Your task to perform on an android device: change the clock display to digital Image 0: 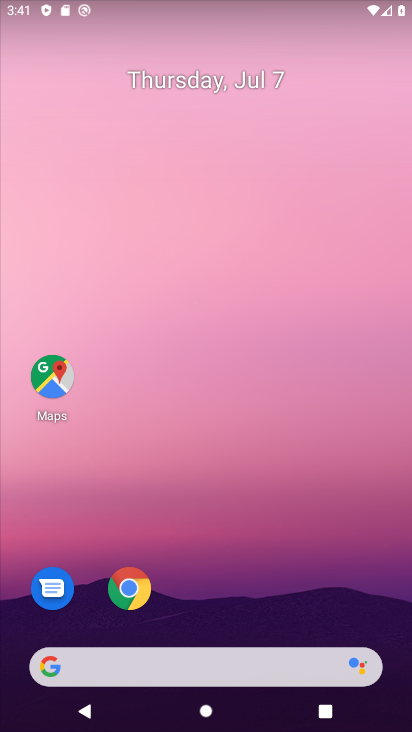
Step 0: drag from (260, 690) to (265, 219)
Your task to perform on an android device: change the clock display to digital Image 1: 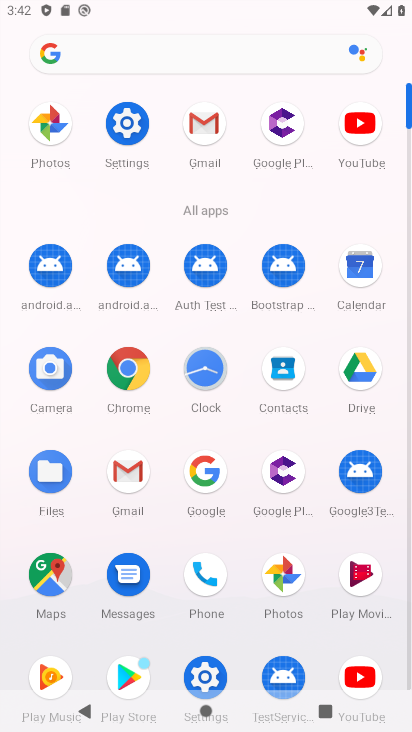
Step 1: click (197, 383)
Your task to perform on an android device: change the clock display to digital Image 2: 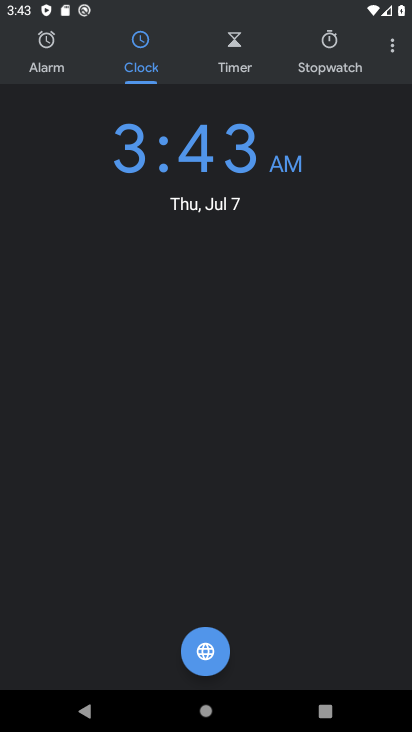
Step 2: click (383, 49)
Your task to perform on an android device: change the clock display to digital Image 3: 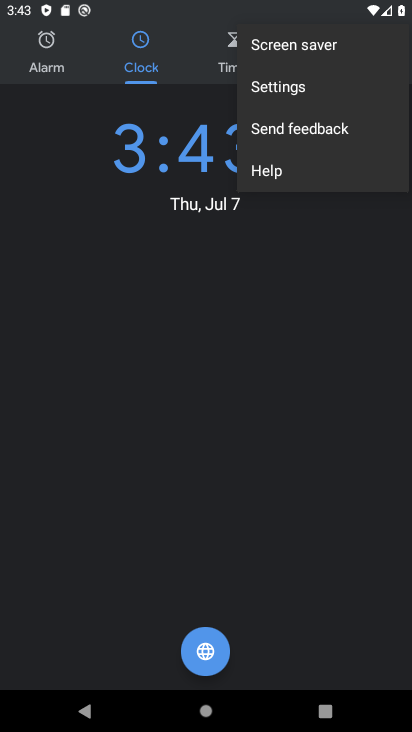
Step 3: click (316, 89)
Your task to perform on an android device: change the clock display to digital Image 4: 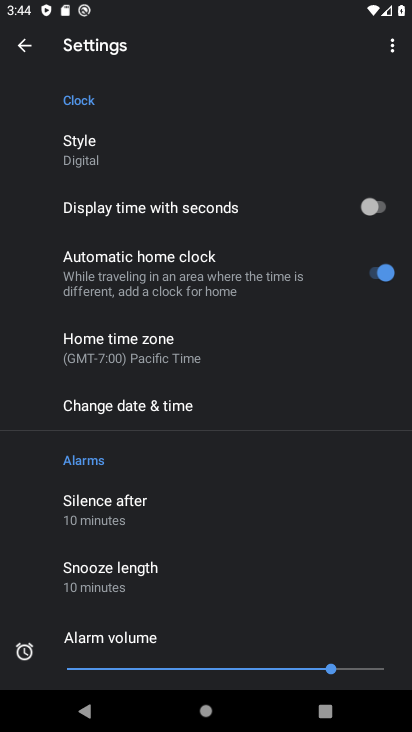
Step 4: click (130, 154)
Your task to perform on an android device: change the clock display to digital Image 5: 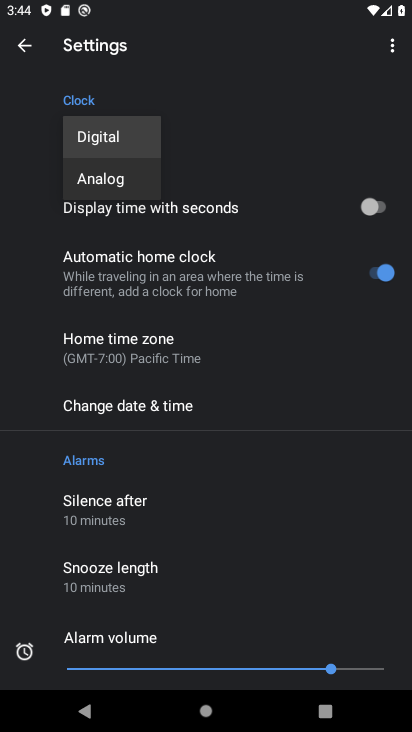
Step 5: click (125, 144)
Your task to perform on an android device: change the clock display to digital Image 6: 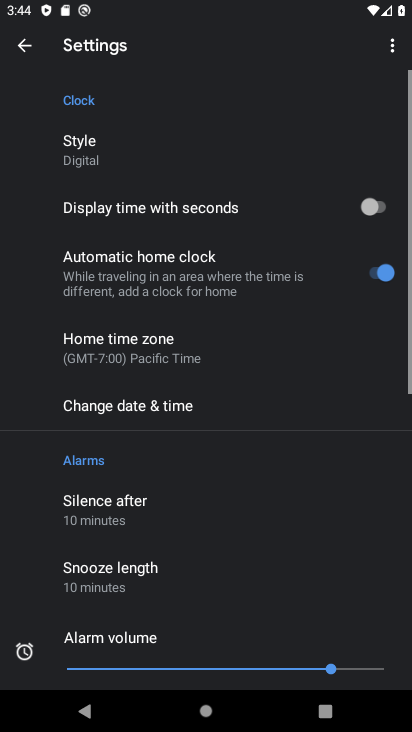
Step 6: task complete